Your task to perform on an android device: delete location history Image 0: 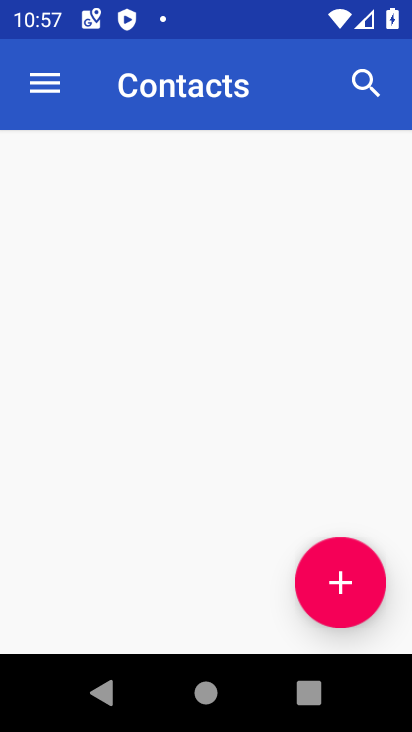
Step 0: drag from (214, 575) to (268, 253)
Your task to perform on an android device: delete location history Image 1: 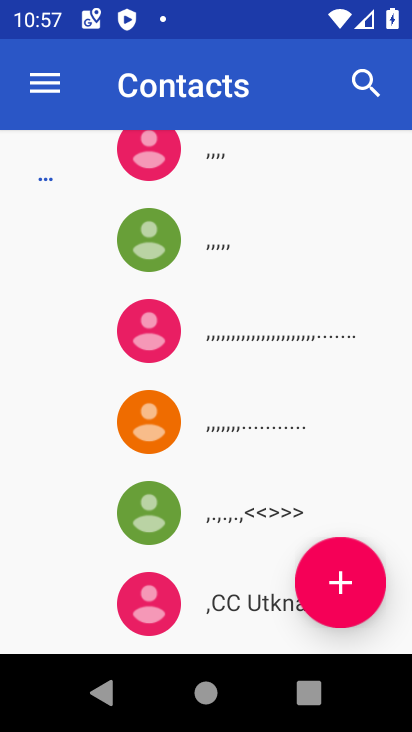
Step 1: press home button
Your task to perform on an android device: delete location history Image 2: 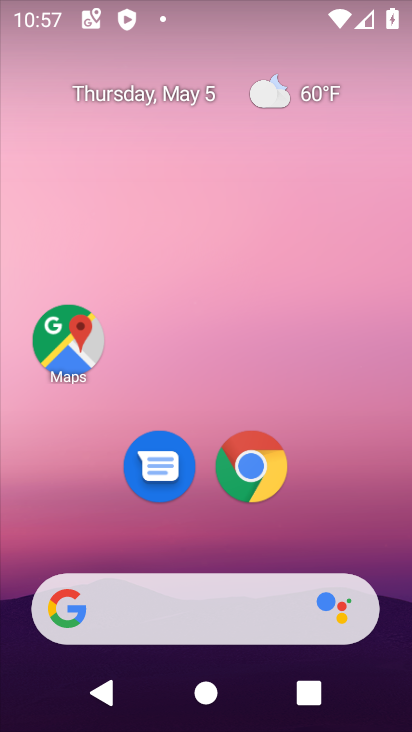
Step 2: drag from (136, 581) to (215, 232)
Your task to perform on an android device: delete location history Image 3: 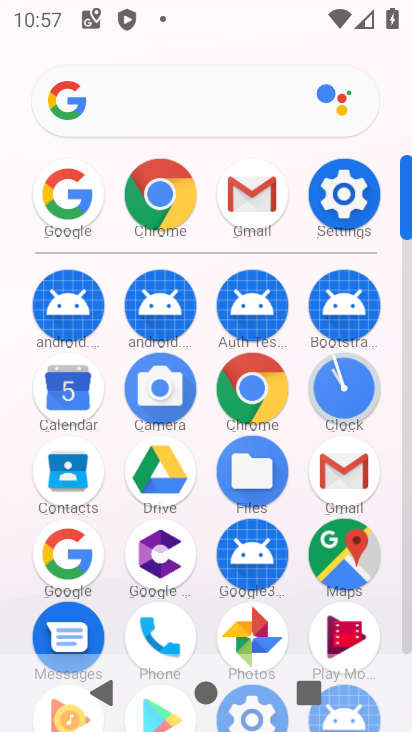
Step 3: click (354, 188)
Your task to perform on an android device: delete location history Image 4: 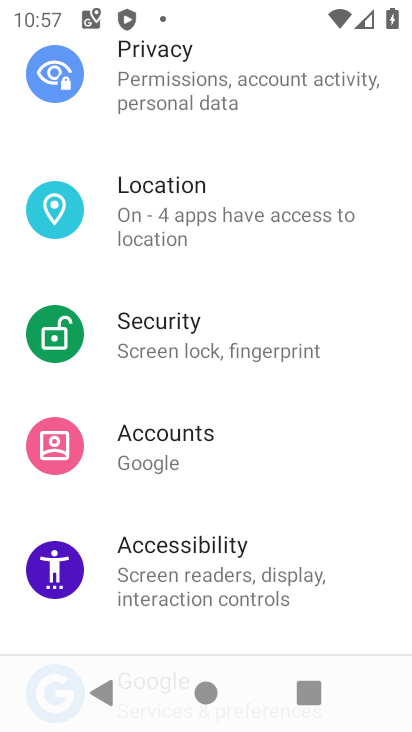
Step 4: click (177, 205)
Your task to perform on an android device: delete location history Image 5: 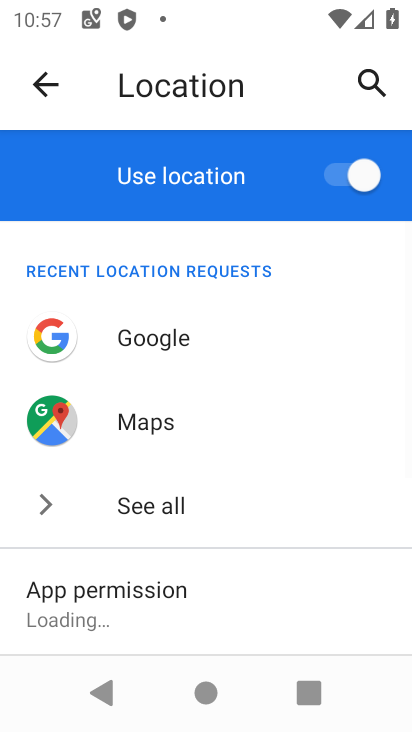
Step 5: drag from (132, 586) to (161, 247)
Your task to perform on an android device: delete location history Image 6: 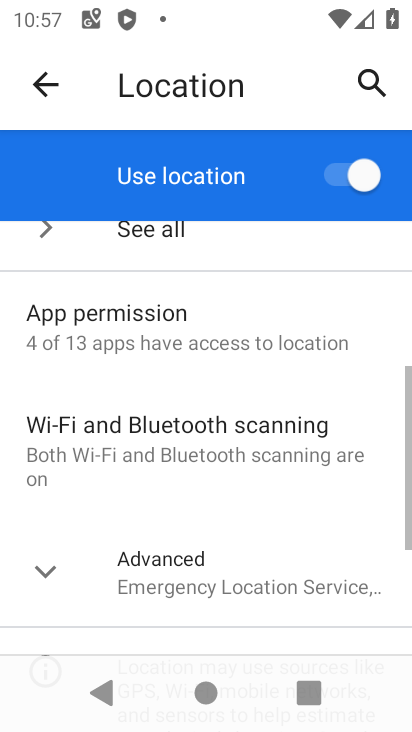
Step 6: click (157, 576)
Your task to perform on an android device: delete location history Image 7: 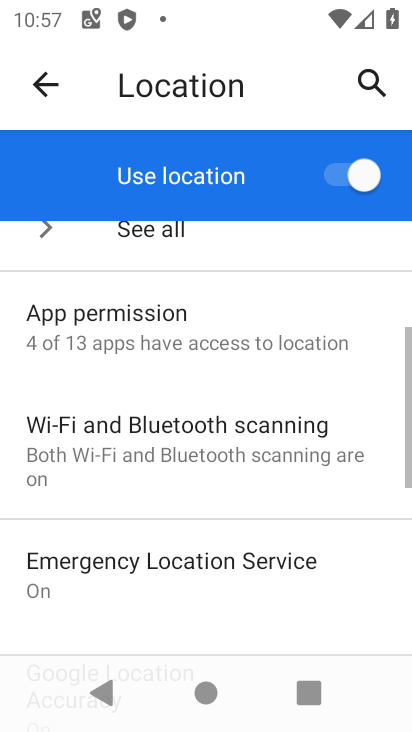
Step 7: drag from (172, 600) to (195, 342)
Your task to perform on an android device: delete location history Image 8: 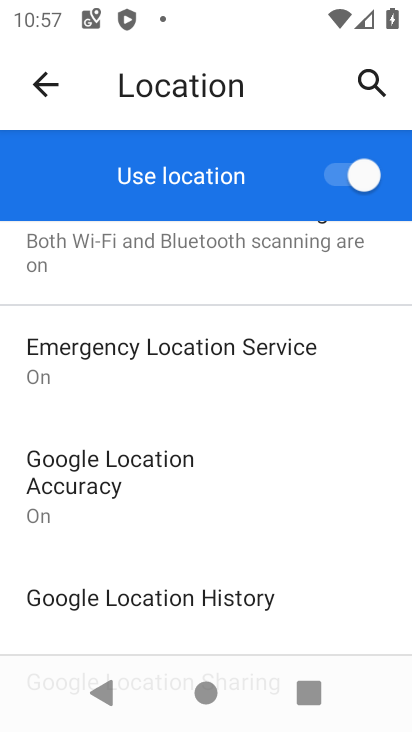
Step 8: drag from (177, 626) to (208, 402)
Your task to perform on an android device: delete location history Image 9: 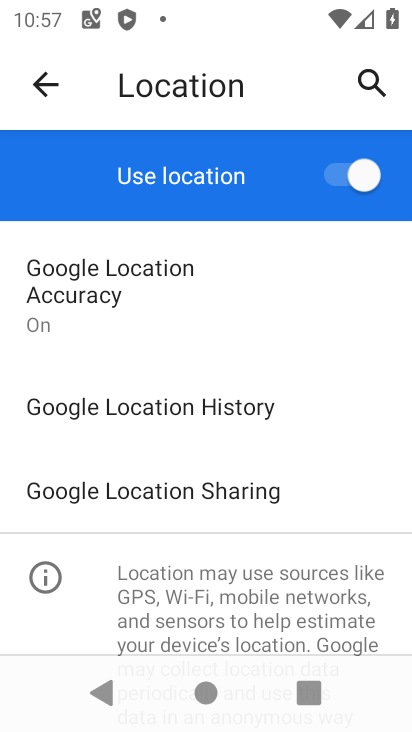
Step 9: click (210, 409)
Your task to perform on an android device: delete location history Image 10: 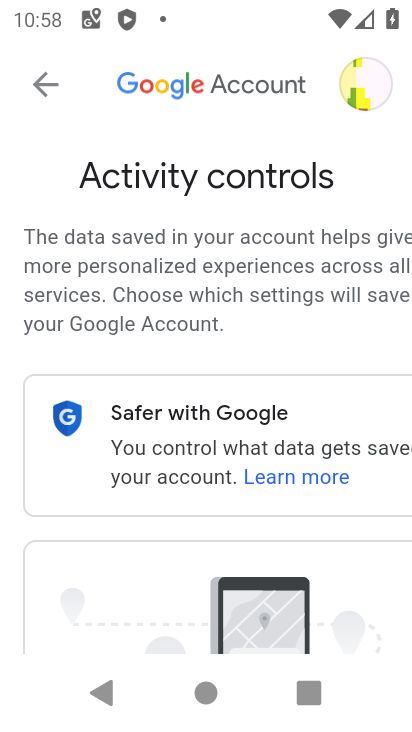
Step 10: drag from (167, 667) to (115, 313)
Your task to perform on an android device: delete location history Image 11: 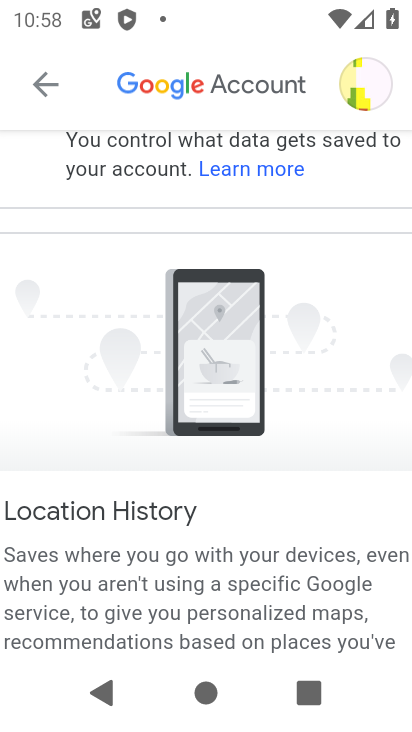
Step 11: drag from (147, 597) to (139, 335)
Your task to perform on an android device: delete location history Image 12: 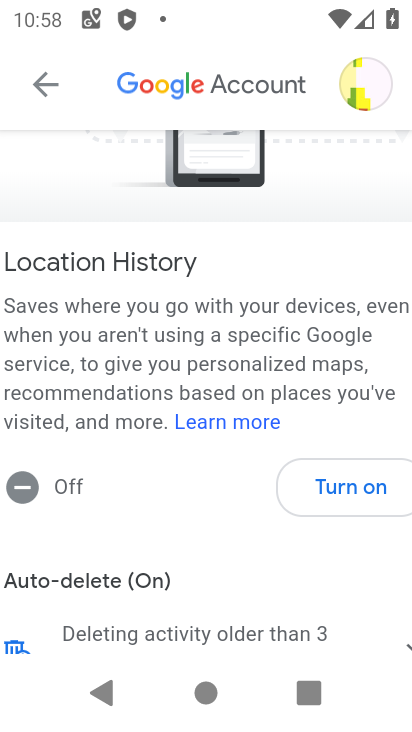
Step 12: drag from (177, 584) to (175, 310)
Your task to perform on an android device: delete location history Image 13: 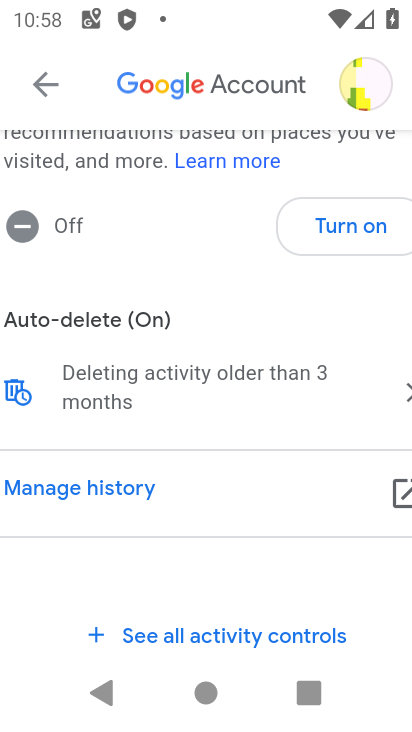
Step 13: click (142, 380)
Your task to perform on an android device: delete location history Image 14: 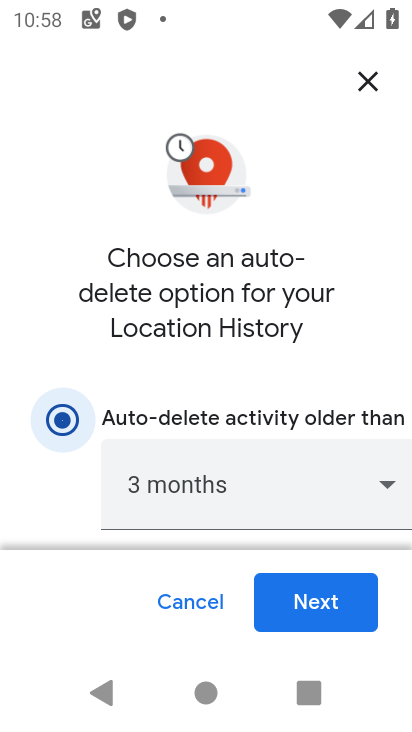
Step 14: click (309, 598)
Your task to perform on an android device: delete location history Image 15: 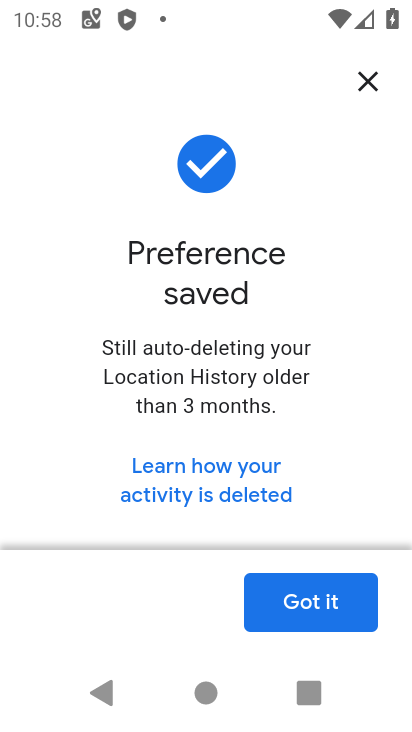
Step 15: click (311, 602)
Your task to perform on an android device: delete location history Image 16: 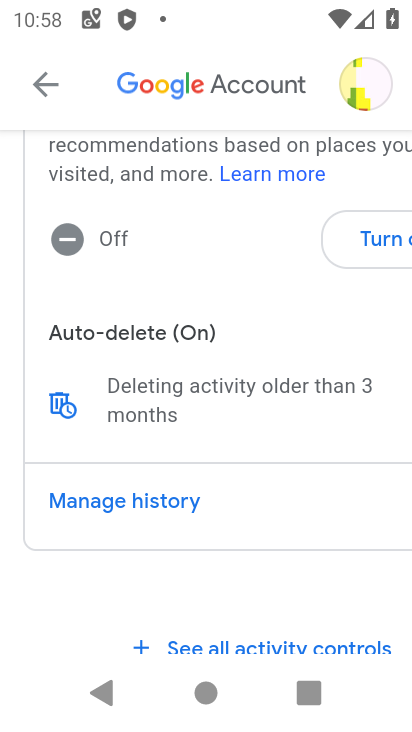
Step 16: task complete